Your task to perform on an android device: check google app version Image 0: 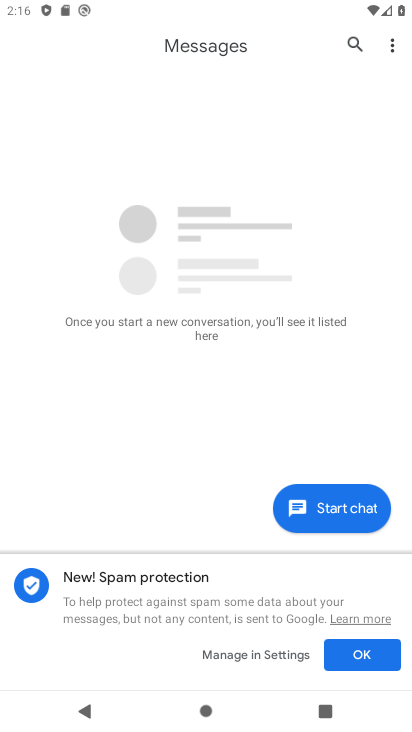
Step 0: press home button
Your task to perform on an android device: check google app version Image 1: 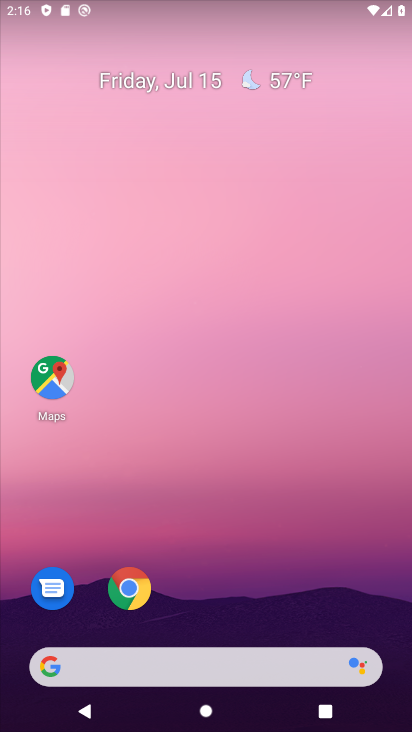
Step 1: drag from (261, 571) to (192, 150)
Your task to perform on an android device: check google app version Image 2: 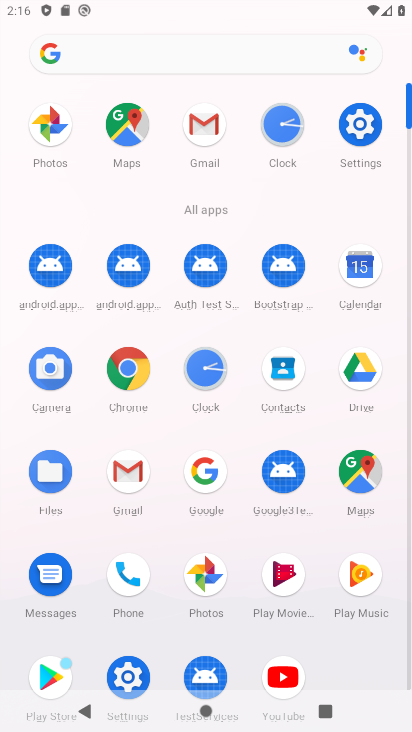
Step 2: click (208, 464)
Your task to perform on an android device: check google app version Image 3: 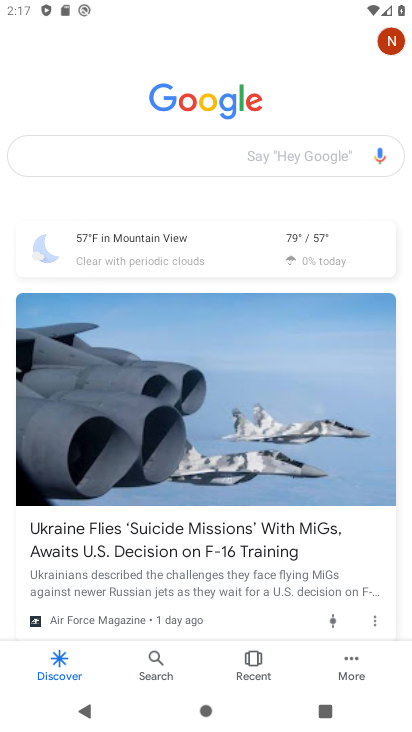
Step 3: click (387, 42)
Your task to perform on an android device: check google app version Image 4: 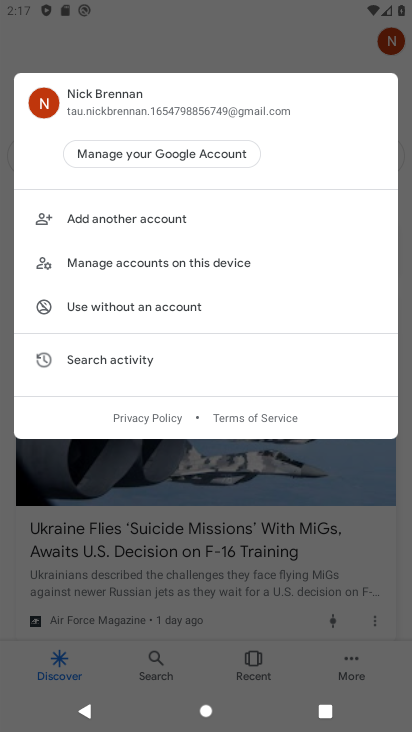
Step 4: click (390, 45)
Your task to perform on an android device: check google app version Image 5: 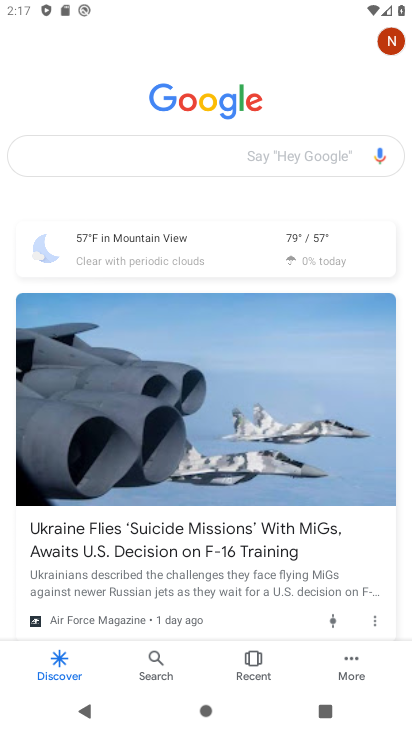
Step 5: click (352, 656)
Your task to perform on an android device: check google app version Image 6: 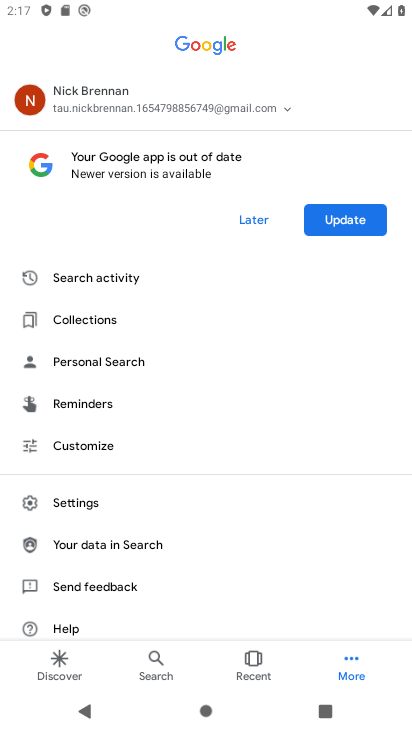
Step 6: click (56, 502)
Your task to perform on an android device: check google app version Image 7: 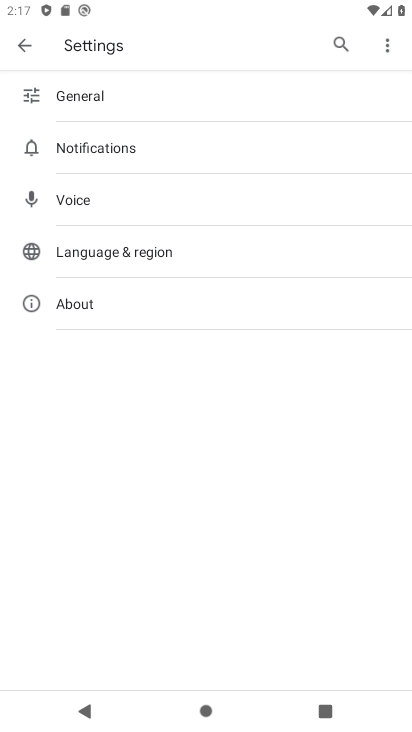
Step 7: click (69, 305)
Your task to perform on an android device: check google app version Image 8: 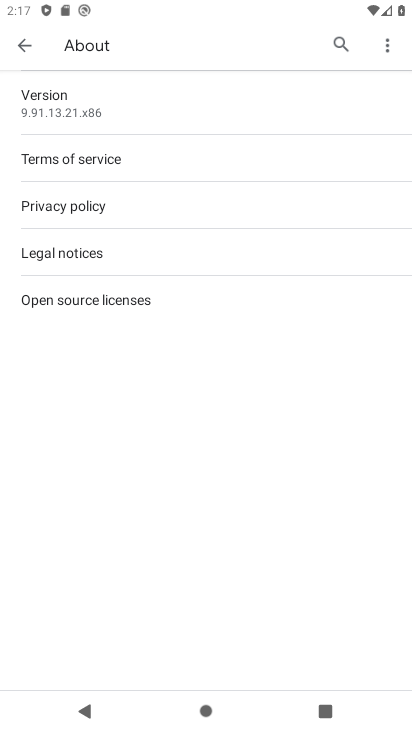
Step 8: task complete